Your task to perform on an android device: Open Google Maps and go to "Timeline" Image 0: 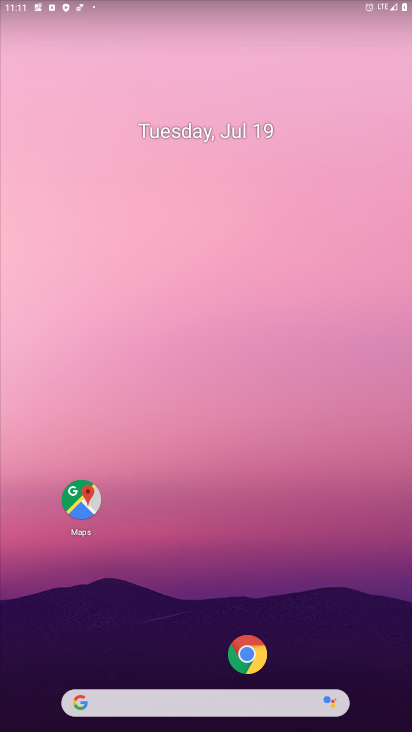
Step 0: click (93, 491)
Your task to perform on an android device: Open Google Maps and go to "Timeline" Image 1: 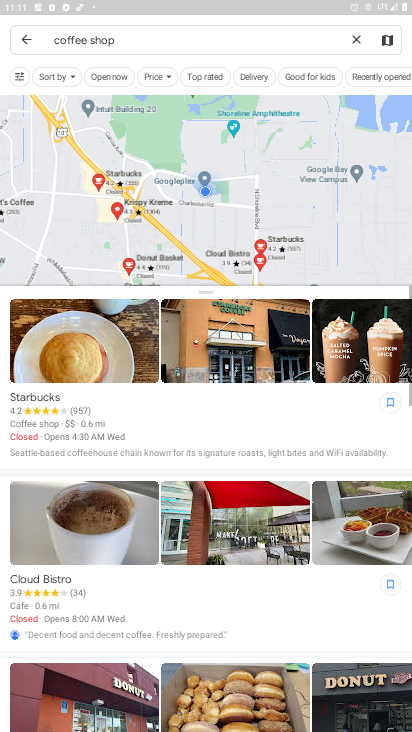
Step 1: click (24, 30)
Your task to perform on an android device: Open Google Maps and go to "Timeline" Image 2: 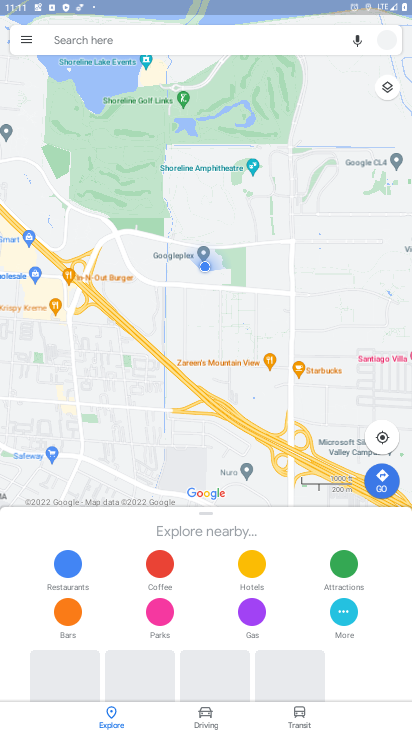
Step 2: click (32, 40)
Your task to perform on an android device: Open Google Maps and go to "Timeline" Image 3: 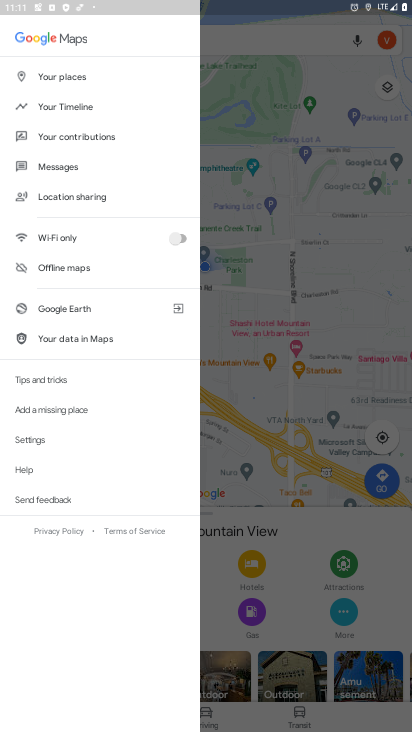
Step 3: click (94, 111)
Your task to perform on an android device: Open Google Maps and go to "Timeline" Image 4: 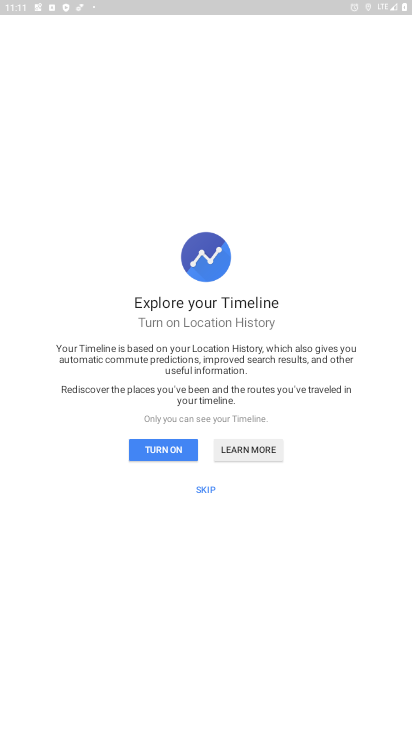
Step 4: click (183, 450)
Your task to perform on an android device: Open Google Maps and go to "Timeline" Image 5: 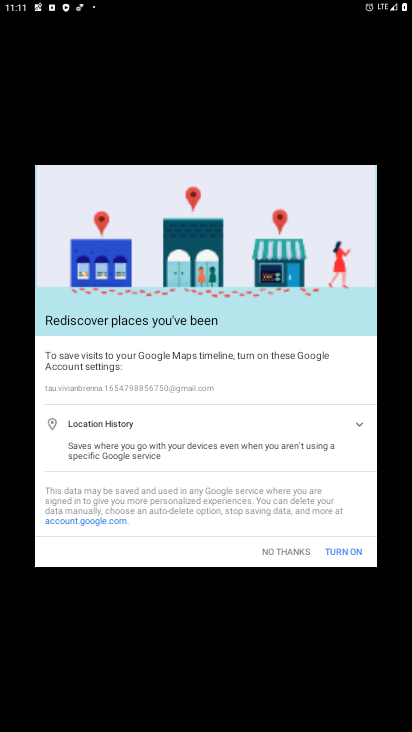
Step 5: click (346, 556)
Your task to perform on an android device: Open Google Maps and go to "Timeline" Image 6: 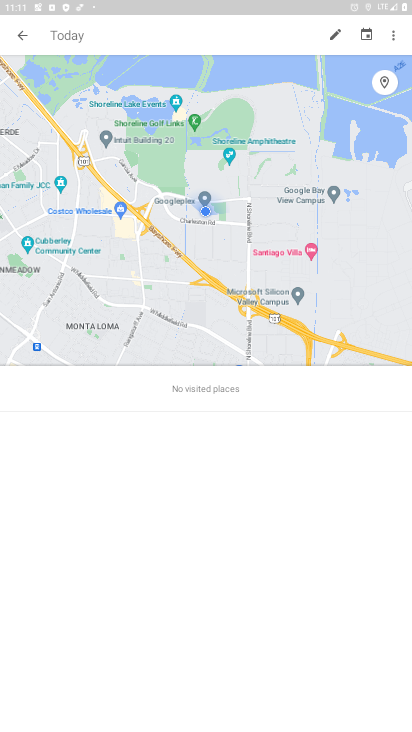
Step 6: task complete